Your task to perform on an android device: Open Amazon Image 0: 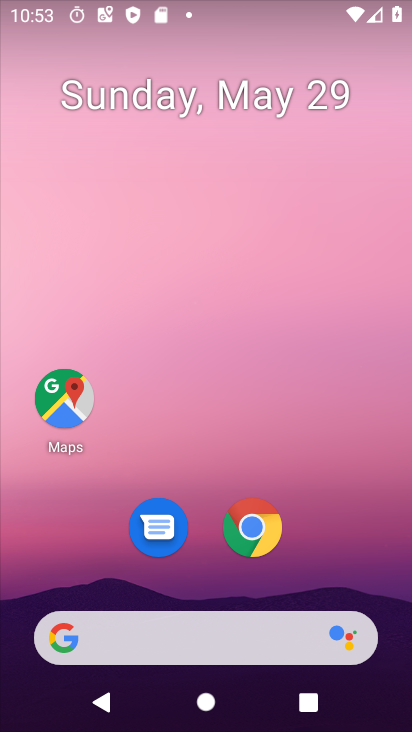
Step 0: click (254, 527)
Your task to perform on an android device: Open Amazon Image 1: 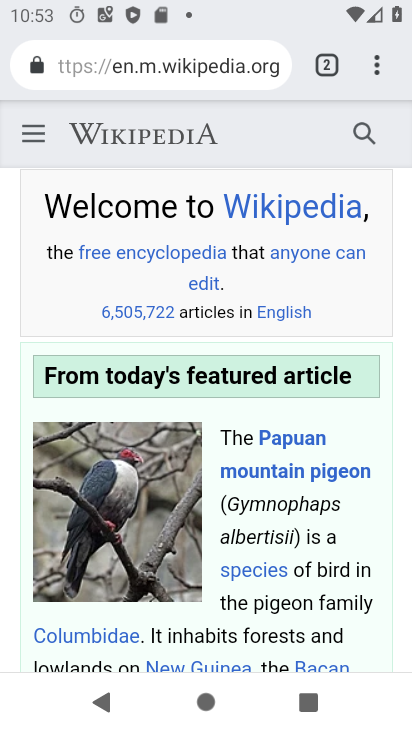
Step 1: click (246, 74)
Your task to perform on an android device: Open Amazon Image 2: 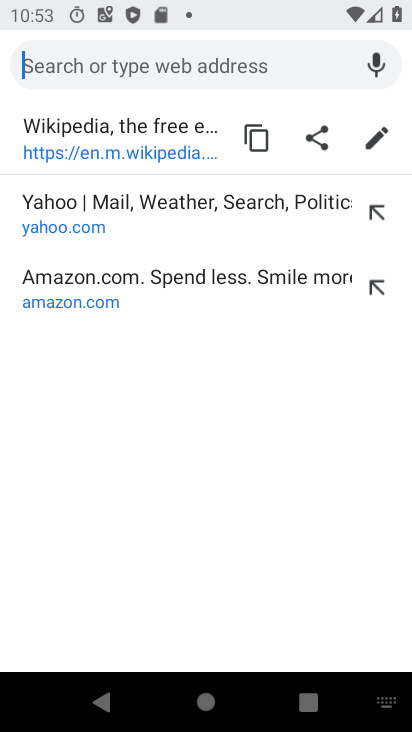
Step 2: click (83, 304)
Your task to perform on an android device: Open Amazon Image 3: 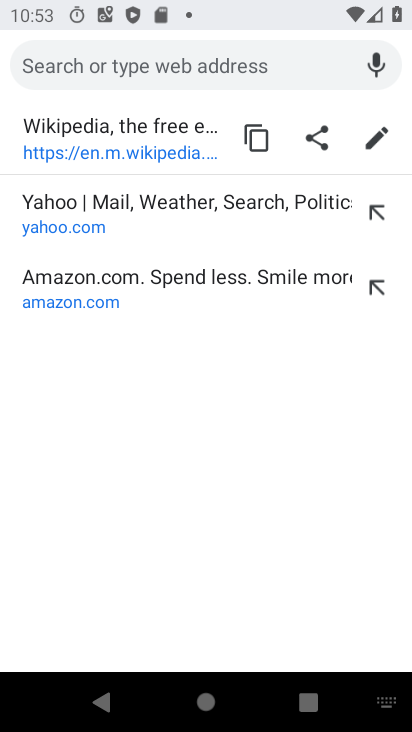
Step 3: click (86, 300)
Your task to perform on an android device: Open Amazon Image 4: 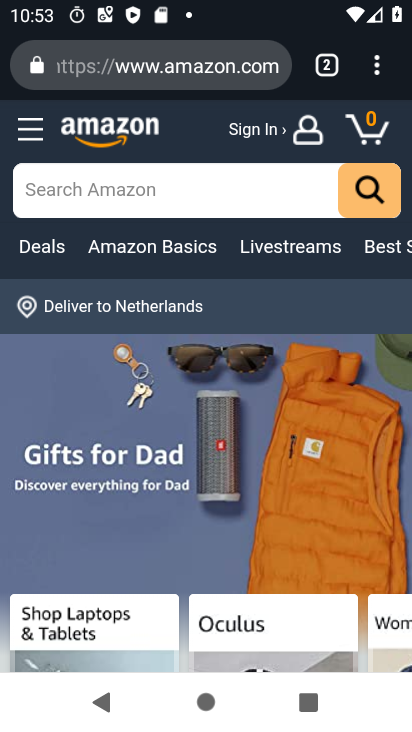
Step 4: task complete